Your task to perform on an android device: Open sound settings Image 0: 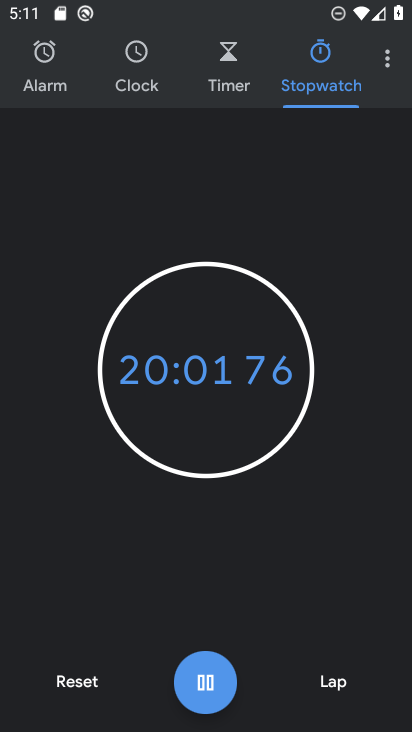
Step 0: drag from (338, 457) to (392, 65)
Your task to perform on an android device: Open sound settings Image 1: 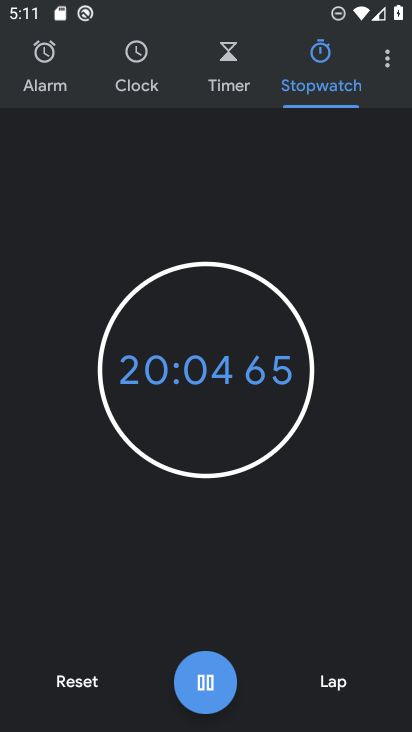
Step 1: press home button
Your task to perform on an android device: Open sound settings Image 2: 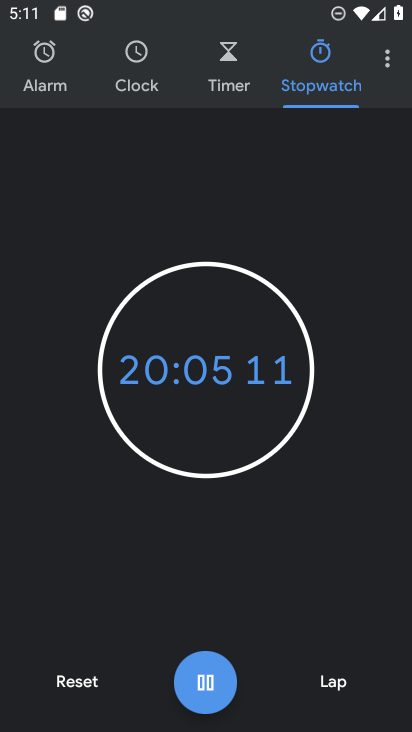
Step 2: press home button
Your task to perform on an android device: Open sound settings Image 3: 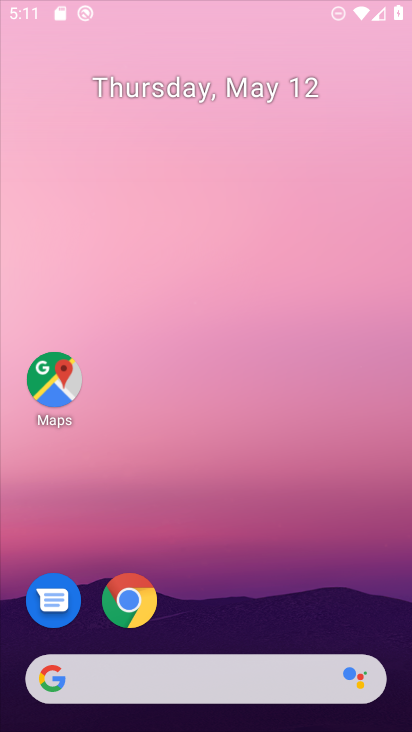
Step 3: press home button
Your task to perform on an android device: Open sound settings Image 4: 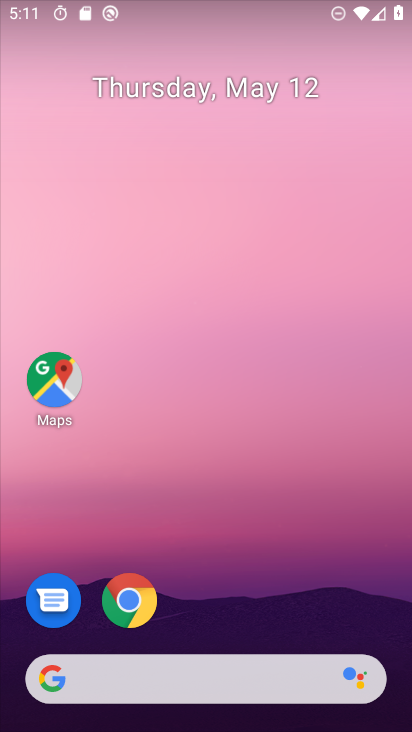
Step 4: click (64, 694)
Your task to perform on an android device: Open sound settings Image 5: 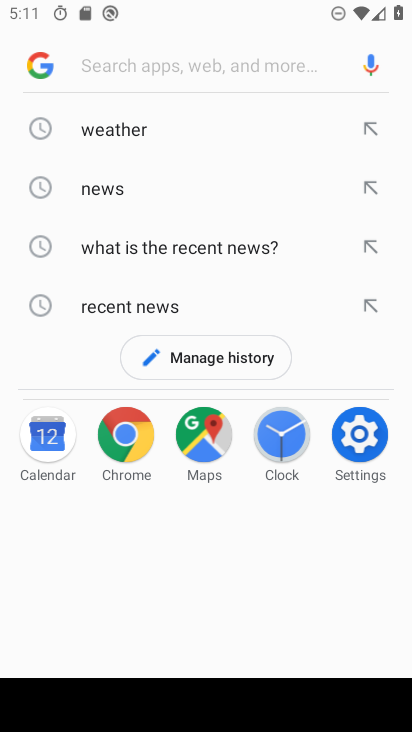
Step 5: press home button
Your task to perform on an android device: Open sound settings Image 6: 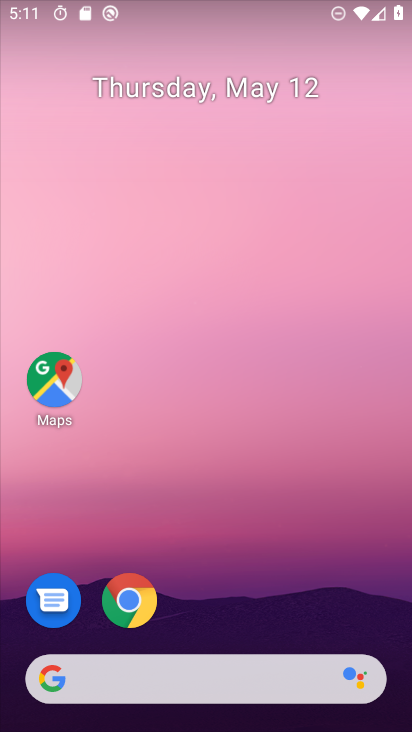
Step 6: drag from (195, 606) to (302, 62)
Your task to perform on an android device: Open sound settings Image 7: 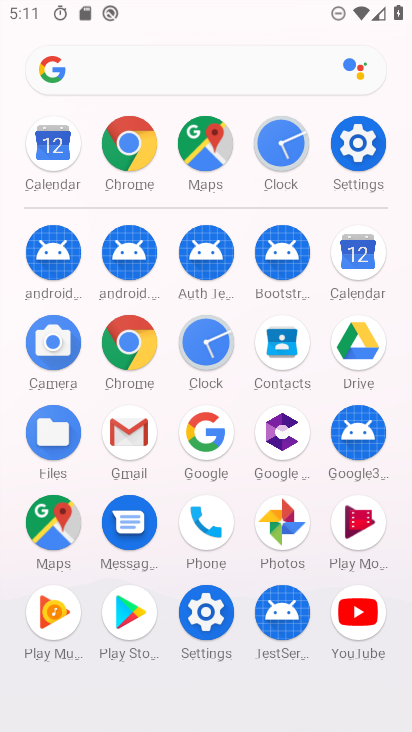
Step 7: drag from (314, 263) to (364, 103)
Your task to perform on an android device: Open sound settings Image 8: 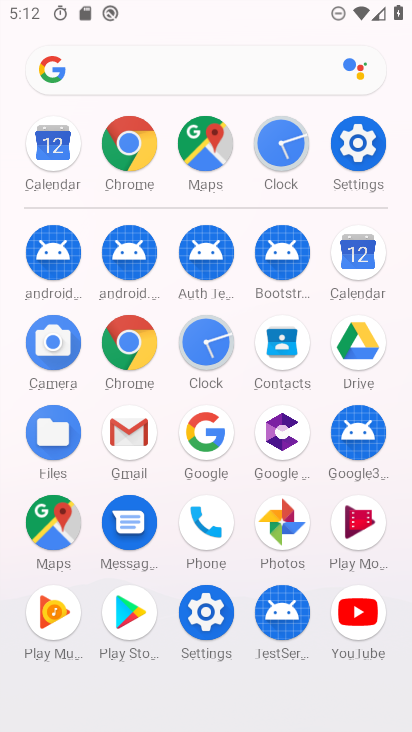
Step 8: click (350, 141)
Your task to perform on an android device: Open sound settings Image 9: 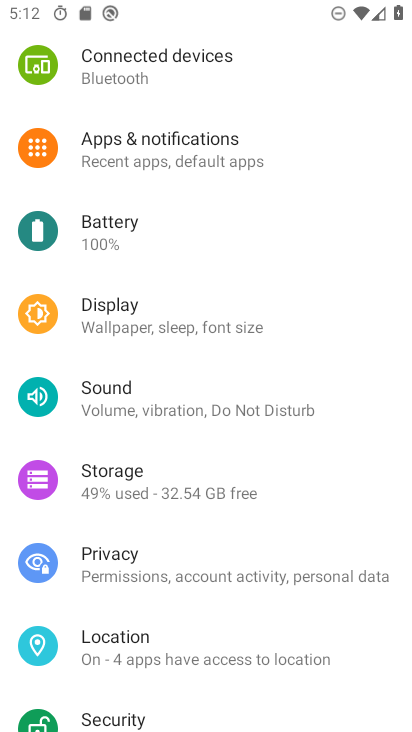
Step 9: click (145, 415)
Your task to perform on an android device: Open sound settings Image 10: 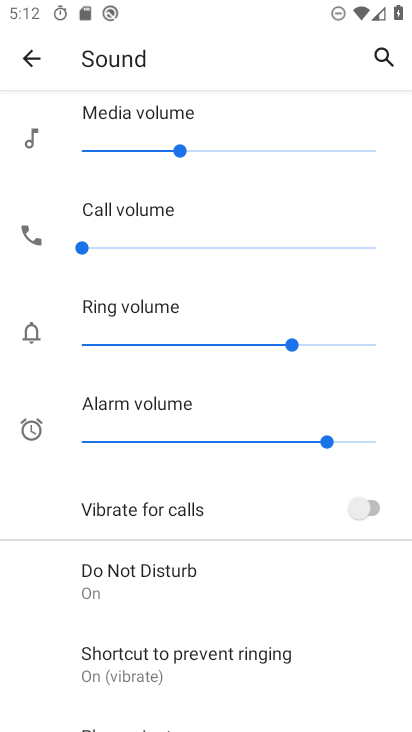
Step 10: task complete